Your task to perform on an android device: open chrome privacy settings Image 0: 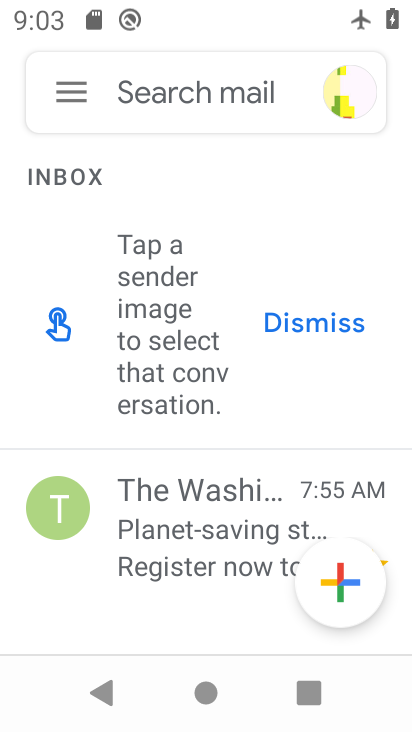
Step 0: press home button
Your task to perform on an android device: open chrome privacy settings Image 1: 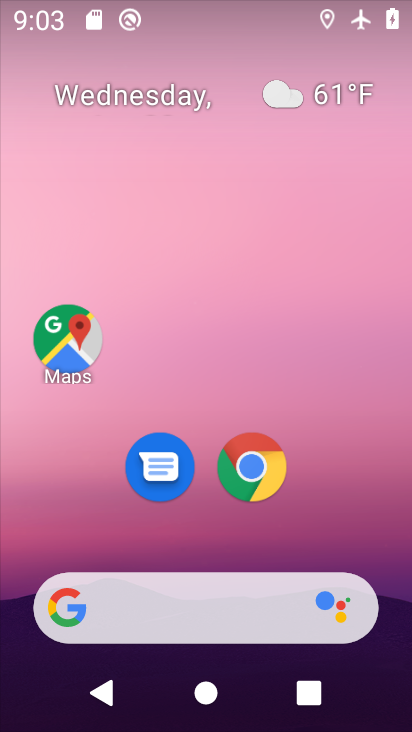
Step 1: click (268, 482)
Your task to perform on an android device: open chrome privacy settings Image 2: 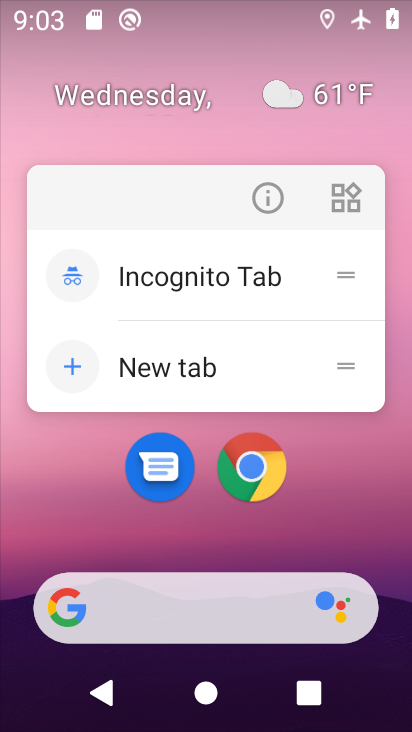
Step 2: click (267, 481)
Your task to perform on an android device: open chrome privacy settings Image 3: 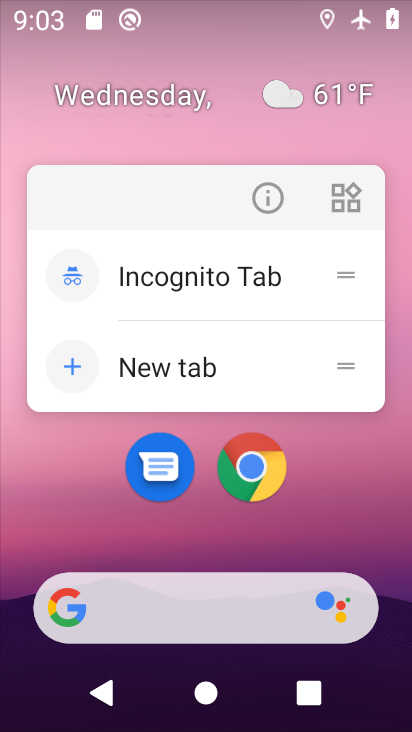
Step 3: click (251, 464)
Your task to perform on an android device: open chrome privacy settings Image 4: 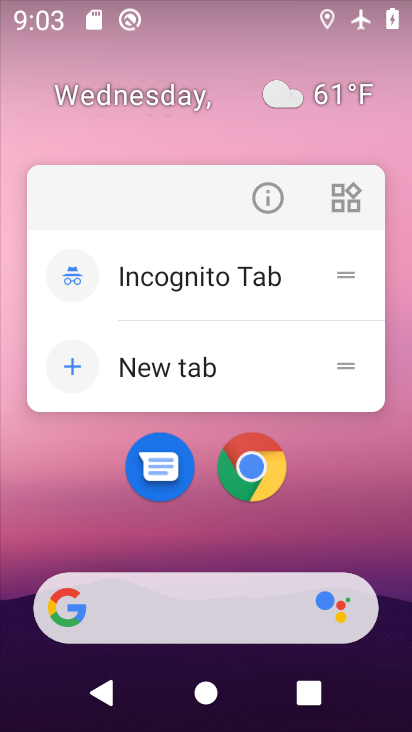
Step 4: click (245, 440)
Your task to perform on an android device: open chrome privacy settings Image 5: 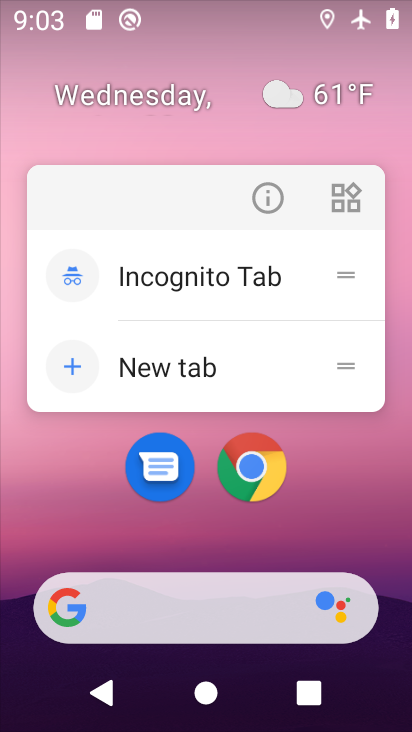
Step 5: click (250, 476)
Your task to perform on an android device: open chrome privacy settings Image 6: 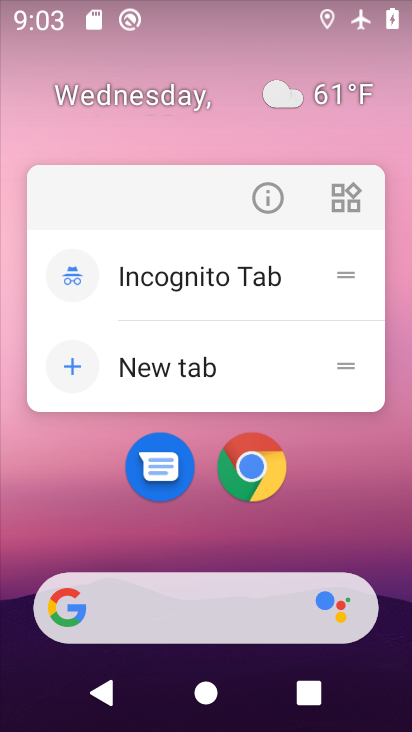
Step 6: click (250, 475)
Your task to perform on an android device: open chrome privacy settings Image 7: 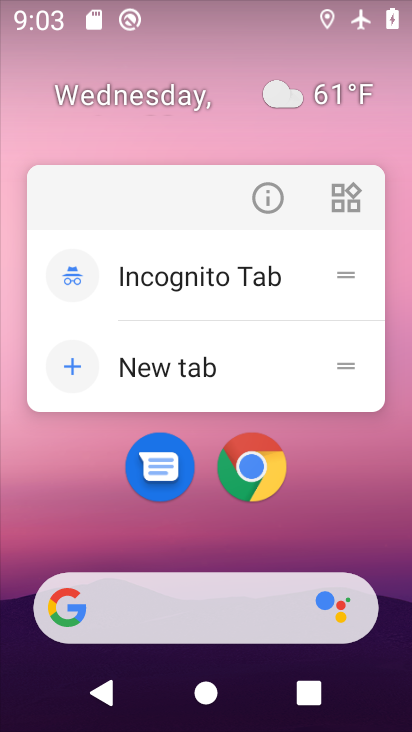
Step 7: click (255, 472)
Your task to perform on an android device: open chrome privacy settings Image 8: 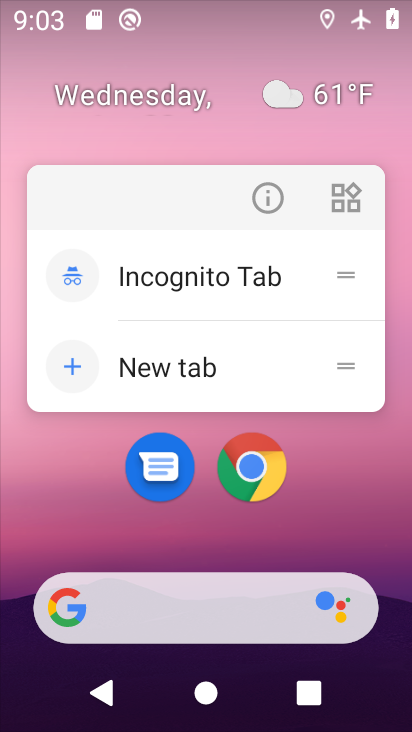
Step 8: click (255, 472)
Your task to perform on an android device: open chrome privacy settings Image 9: 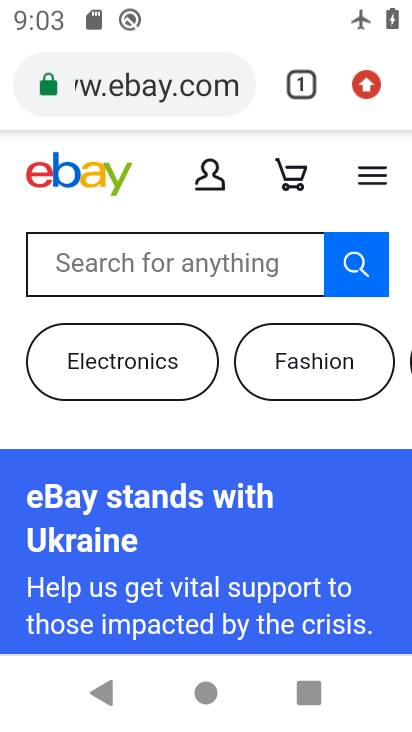
Step 9: click (364, 91)
Your task to perform on an android device: open chrome privacy settings Image 10: 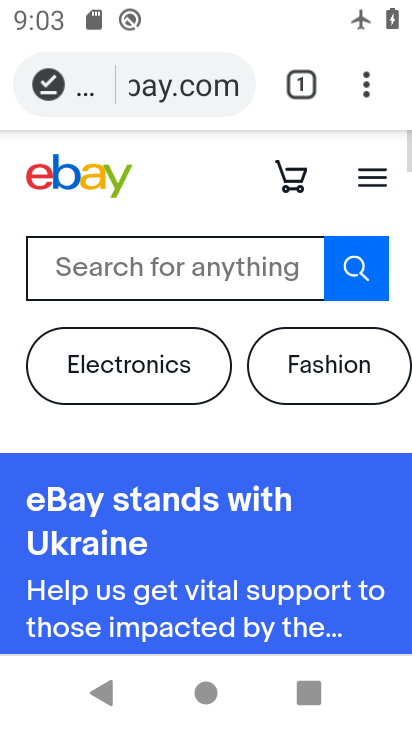
Step 10: drag from (364, 91) to (139, 525)
Your task to perform on an android device: open chrome privacy settings Image 11: 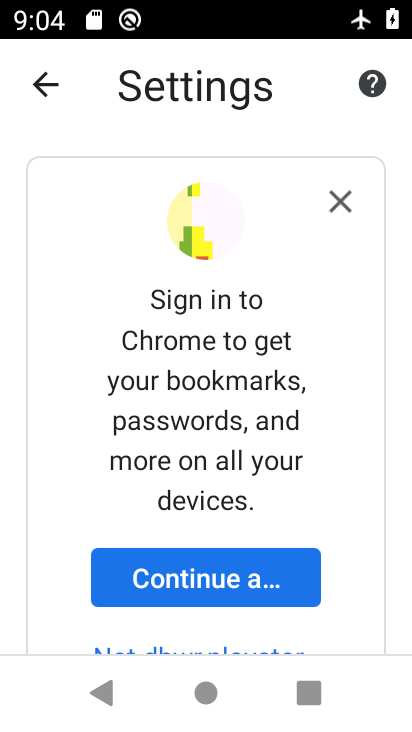
Step 11: drag from (336, 568) to (289, 322)
Your task to perform on an android device: open chrome privacy settings Image 12: 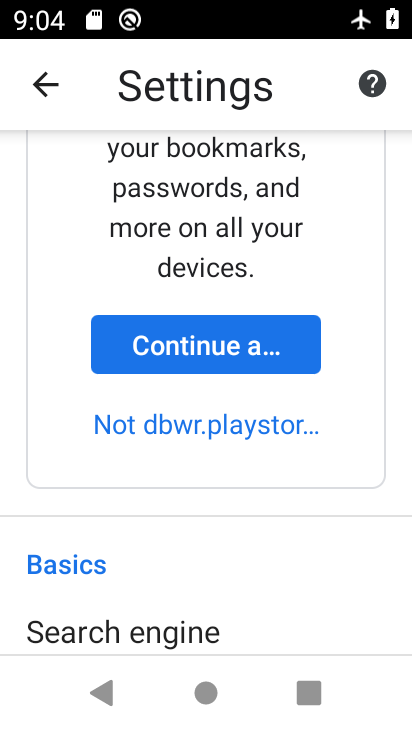
Step 12: drag from (275, 551) to (269, 302)
Your task to perform on an android device: open chrome privacy settings Image 13: 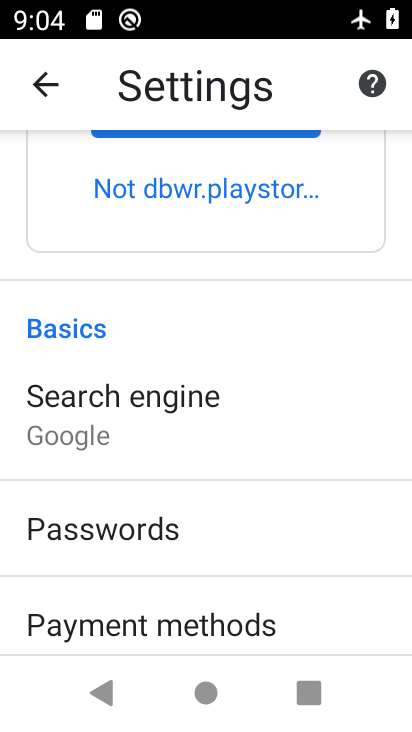
Step 13: drag from (264, 605) to (254, 226)
Your task to perform on an android device: open chrome privacy settings Image 14: 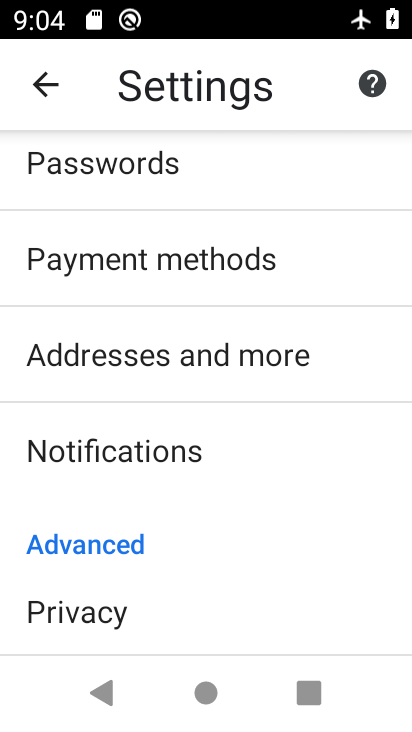
Step 14: drag from (247, 601) to (209, 291)
Your task to perform on an android device: open chrome privacy settings Image 15: 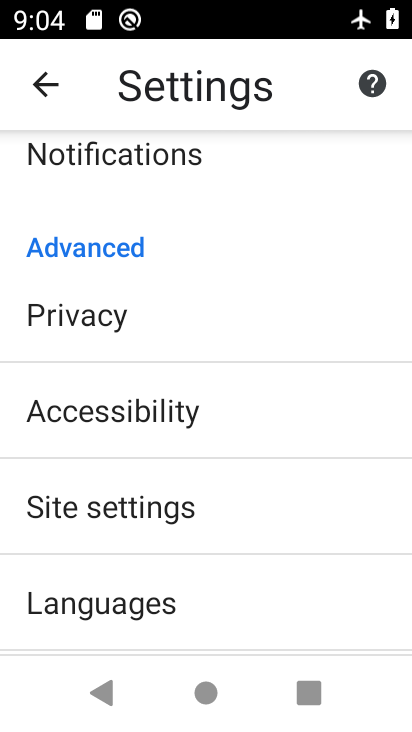
Step 15: click (109, 323)
Your task to perform on an android device: open chrome privacy settings Image 16: 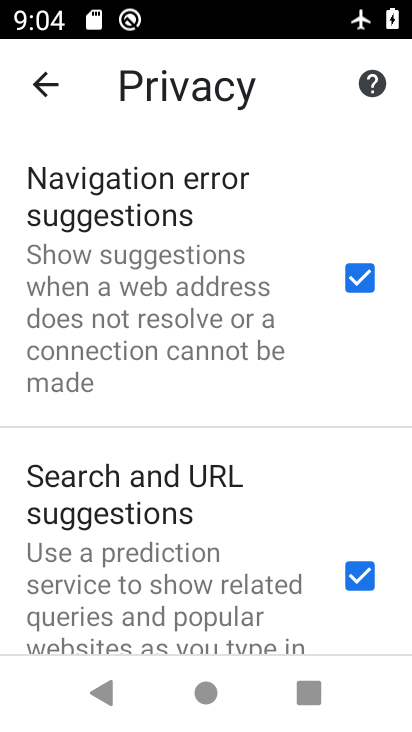
Step 16: task complete